Your task to perform on an android device: Open Maps and search for coffee Image 0: 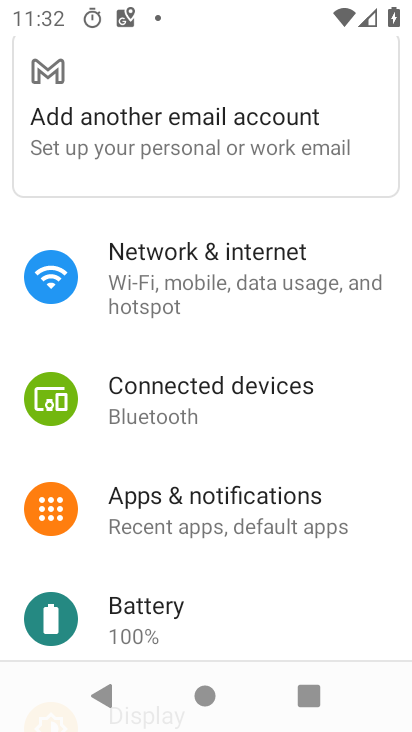
Step 0: press home button
Your task to perform on an android device: Open Maps and search for coffee Image 1: 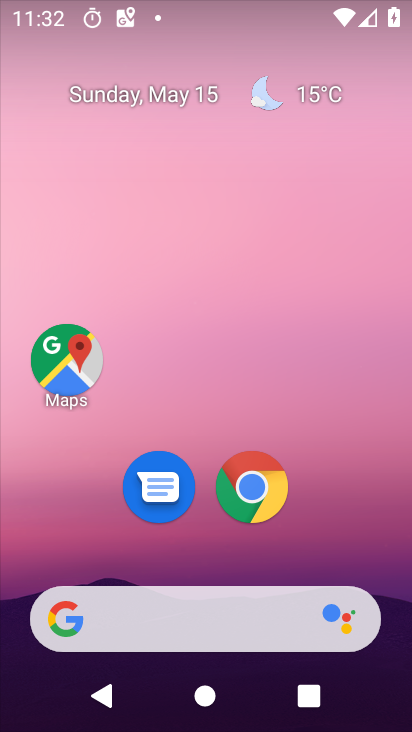
Step 1: click (253, 492)
Your task to perform on an android device: Open Maps and search for coffee Image 2: 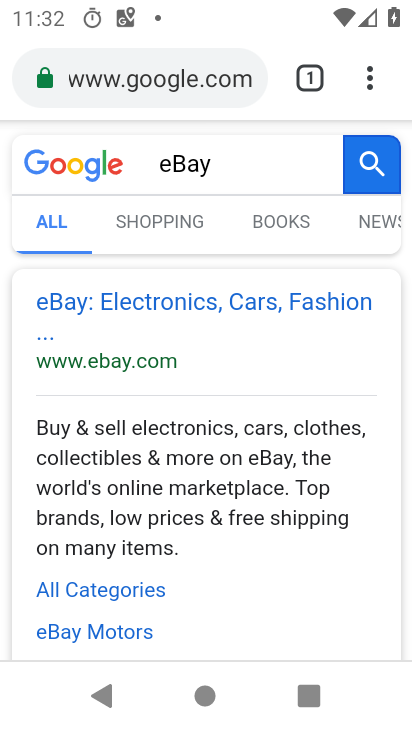
Step 2: press home button
Your task to perform on an android device: Open Maps and search for coffee Image 3: 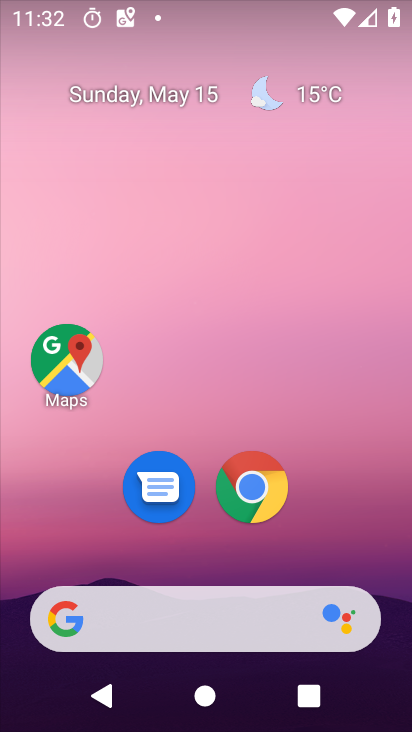
Step 3: click (61, 364)
Your task to perform on an android device: Open Maps and search for coffee Image 4: 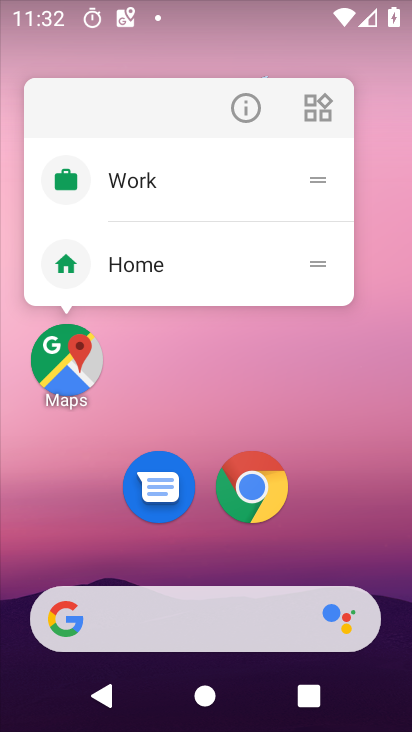
Step 4: click (85, 367)
Your task to perform on an android device: Open Maps and search for coffee Image 5: 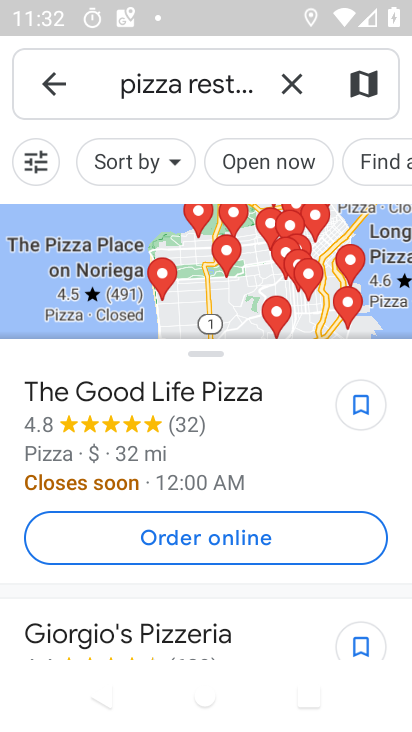
Step 5: click (290, 90)
Your task to perform on an android device: Open Maps and search for coffee Image 6: 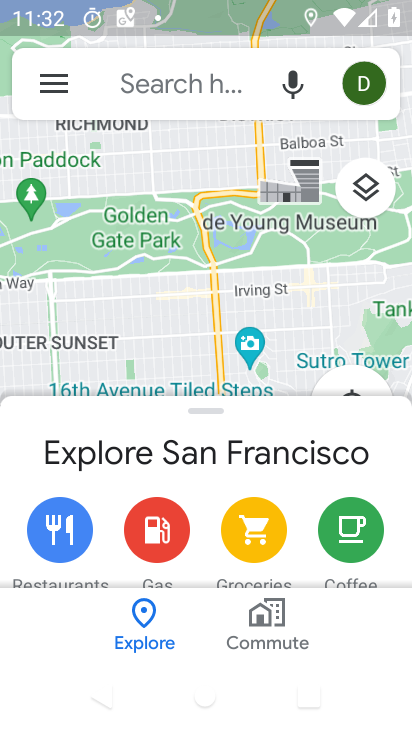
Step 6: click (119, 85)
Your task to perform on an android device: Open Maps and search for coffee Image 7: 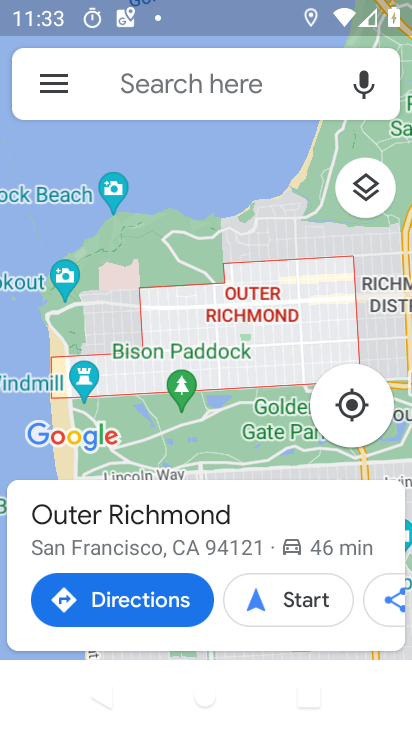
Step 7: type " coffee"
Your task to perform on an android device: Open Maps and search for coffee Image 8: 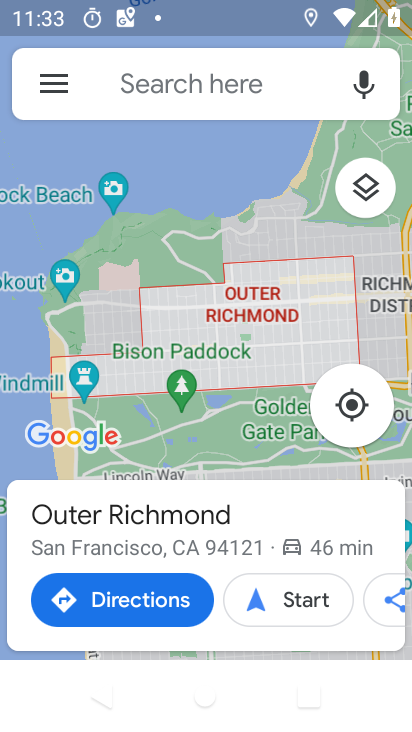
Step 8: click (195, 83)
Your task to perform on an android device: Open Maps and search for coffee Image 9: 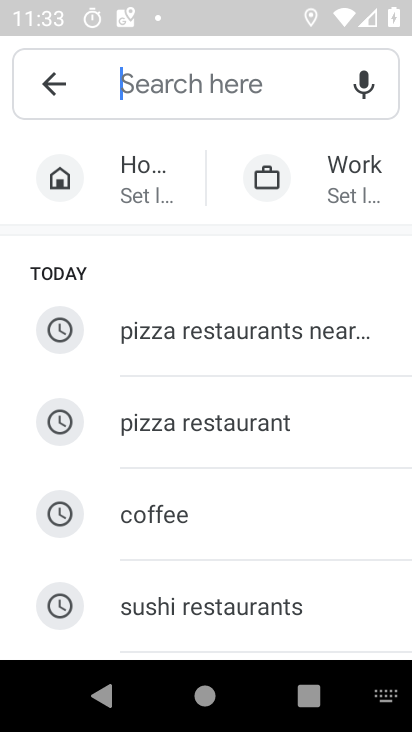
Step 9: type "coffee"
Your task to perform on an android device: Open Maps and search for coffee Image 10: 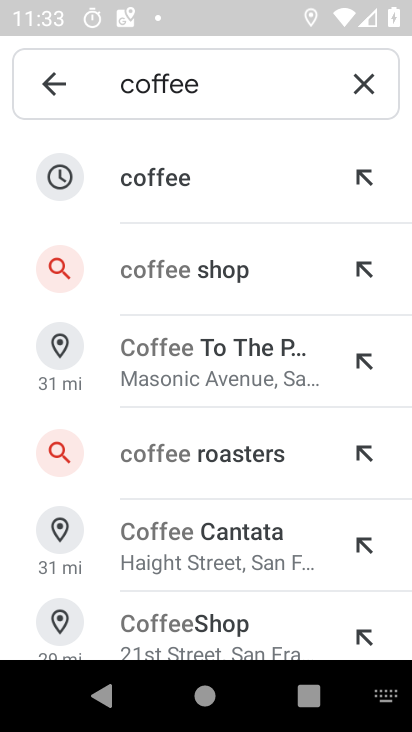
Step 10: click (153, 178)
Your task to perform on an android device: Open Maps and search for coffee Image 11: 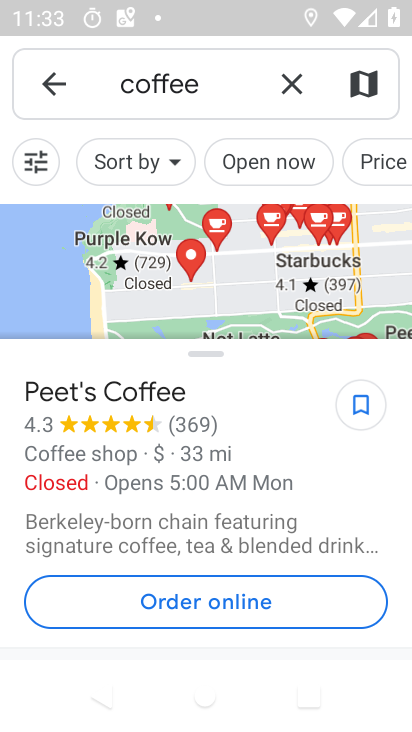
Step 11: task complete